Your task to perform on an android device: read, delete, or share a saved page in the chrome app Image 0: 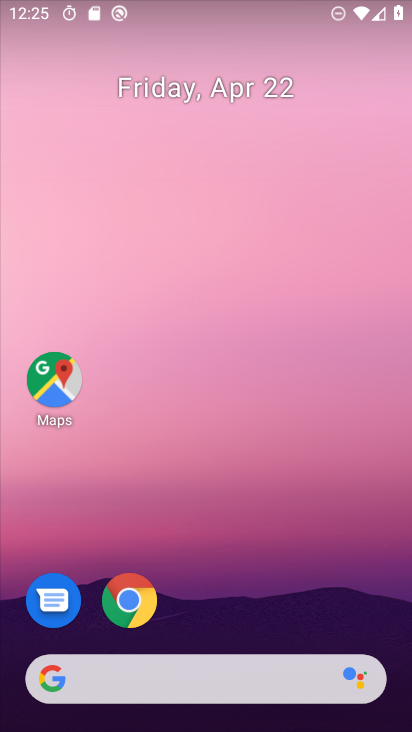
Step 0: click (133, 601)
Your task to perform on an android device: read, delete, or share a saved page in the chrome app Image 1: 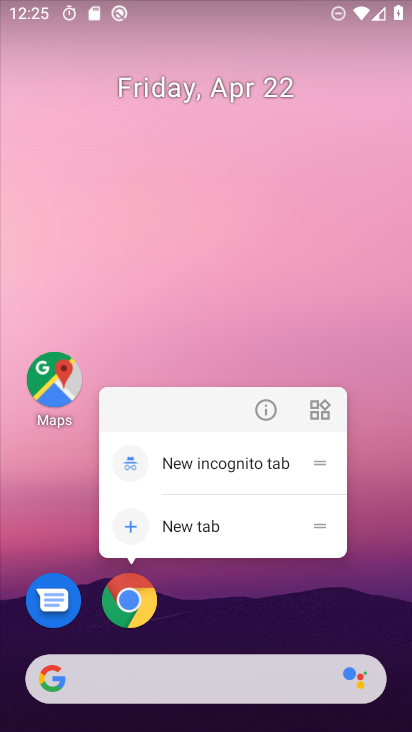
Step 1: click (135, 600)
Your task to perform on an android device: read, delete, or share a saved page in the chrome app Image 2: 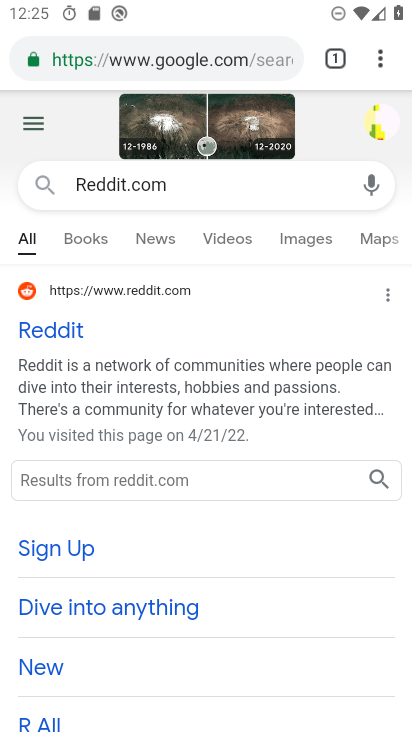
Step 2: click (388, 63)
Your task to perform on an android device: read, delete, or share a saved page in the chrome app Image 3: 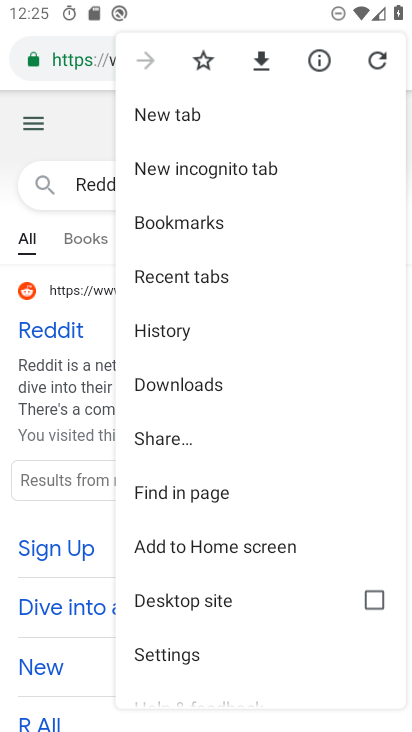
Step 3: click (186, 385)
Your task to perform on an android device: read, delete, or share a saved page in the chrome app Image 4: 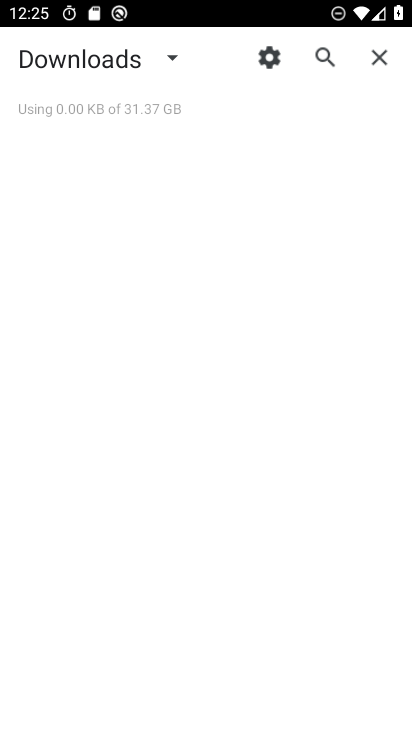
Step 4: click (168, 53)
Your task to perform on an android device: read, delete, or share a saved page in the chrome app Image 5: 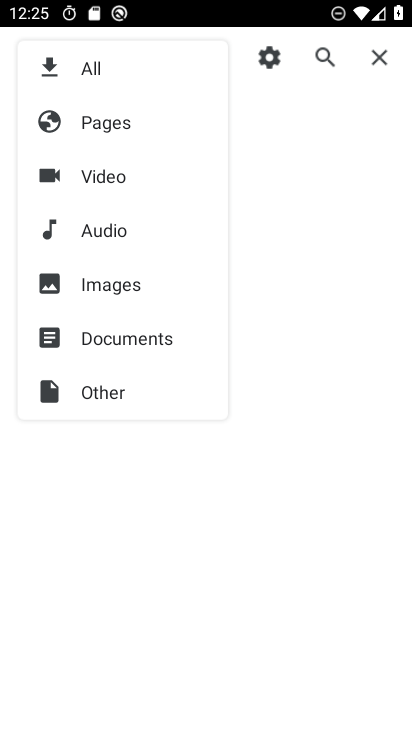
Step 5: click (128, 124)
Your task to perform on an android device: read, delete, or share a saved page in the chrome app Image 6: 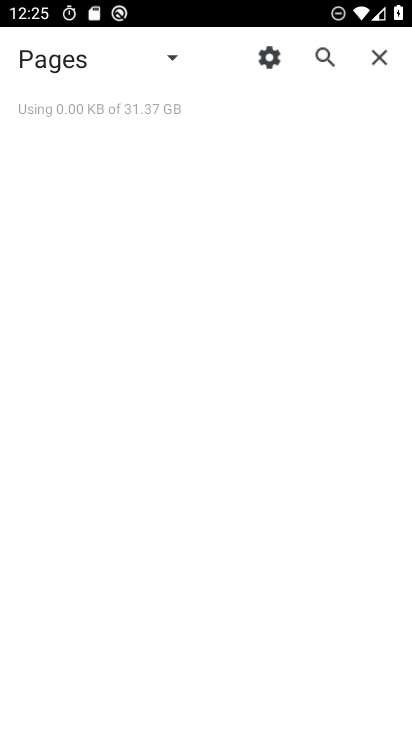
Step 6: task complete